Your task to perform on an android device: turn on translation in the chrome app Image 0: 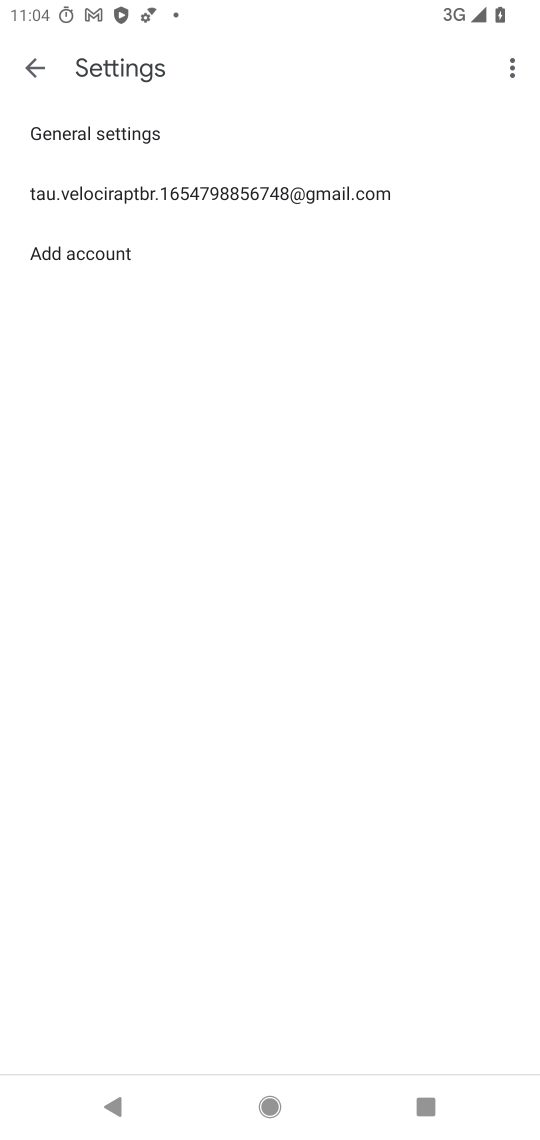
Step 0: press home button
Your task to perform on an android device: turn on translation in the chrome app Image 1: 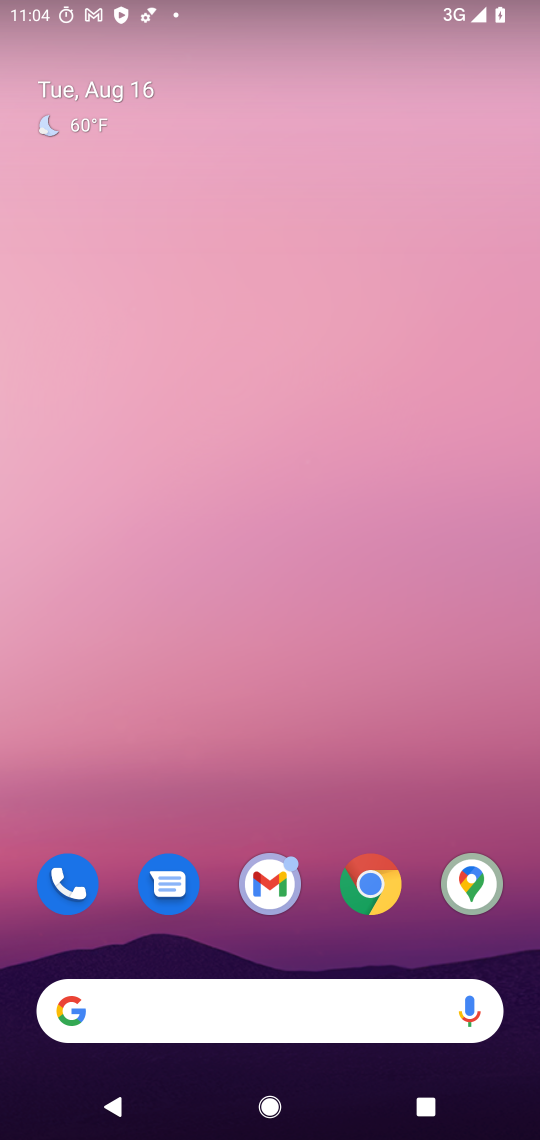
Step 1: click (370, 890)
Your task to perform on an android device: turn on translation in the chrome app Image 2: 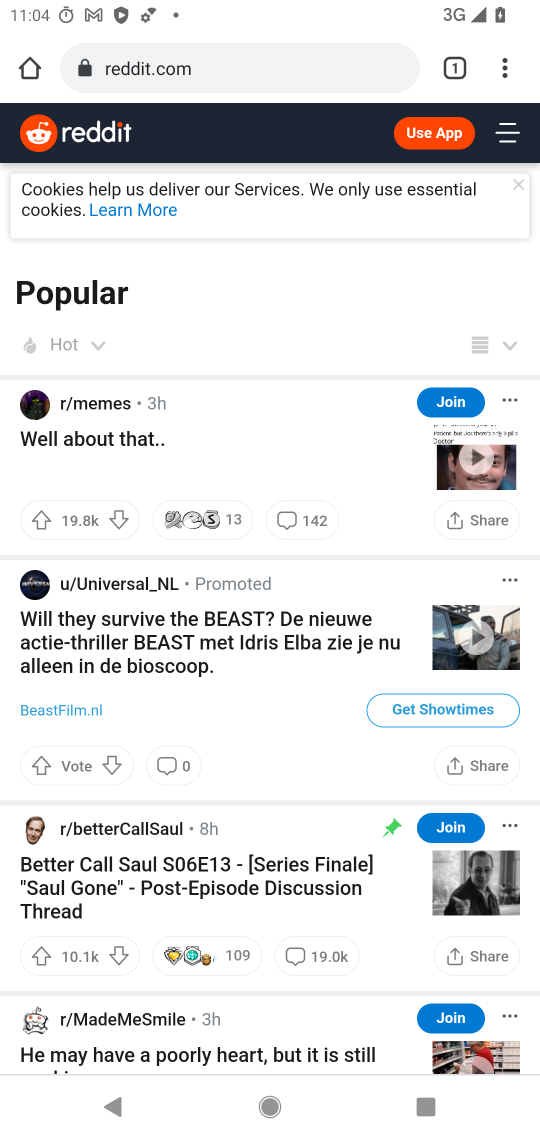
Step 2: click (507, 70)
Your task to perform on an android device: turn on translation in the chrome app Image 3: 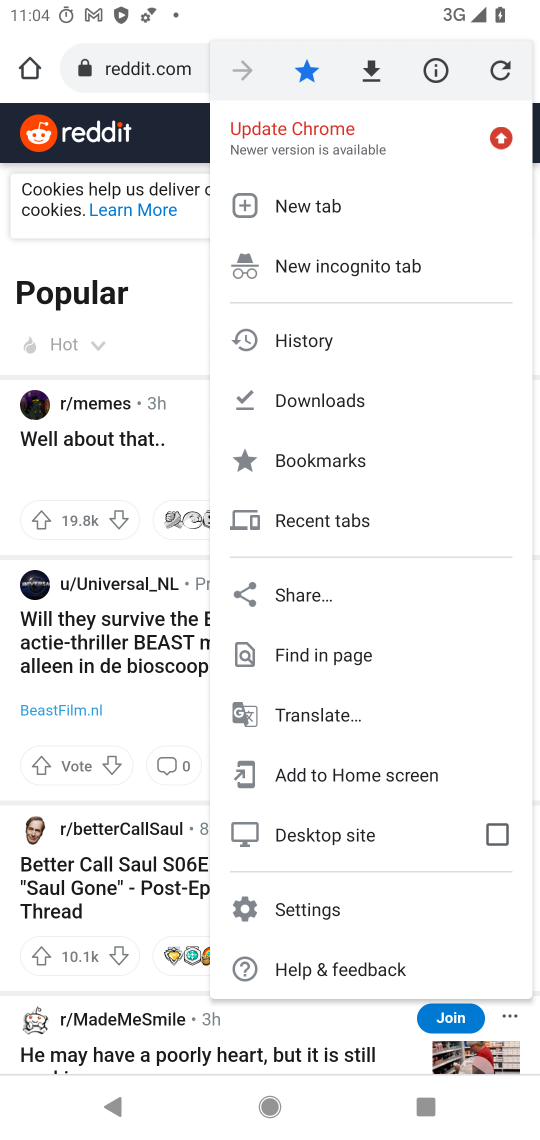
Step 3: click (299, 900)
Your task to perform on an android device: turn on translation in the chrome app Image 4: 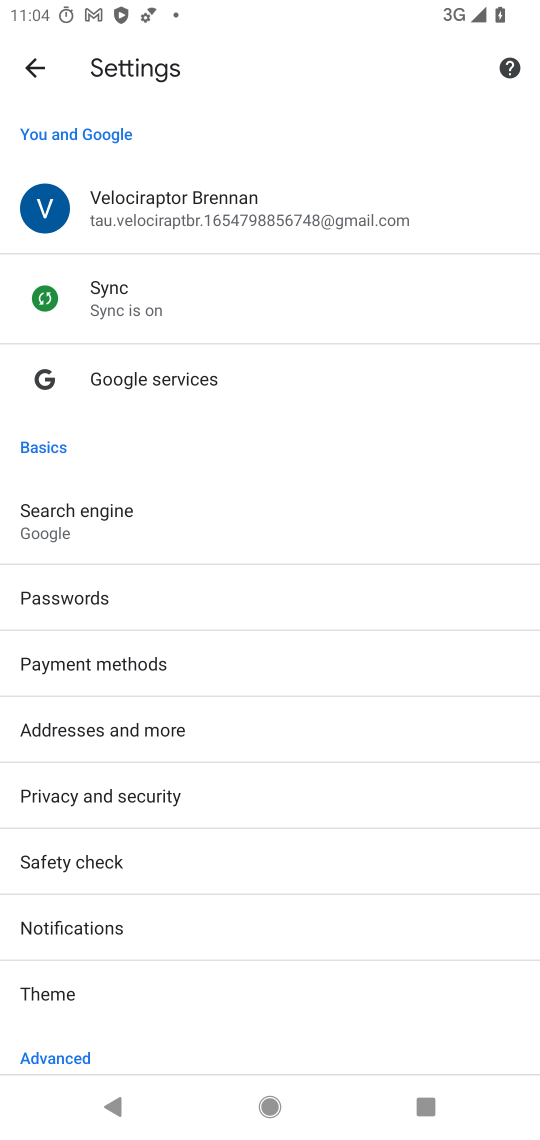
Step 4: drag from (96, 1002) to (96, 509)
Your task to perform on an android device: turn on translation in the chrome app Image 5: 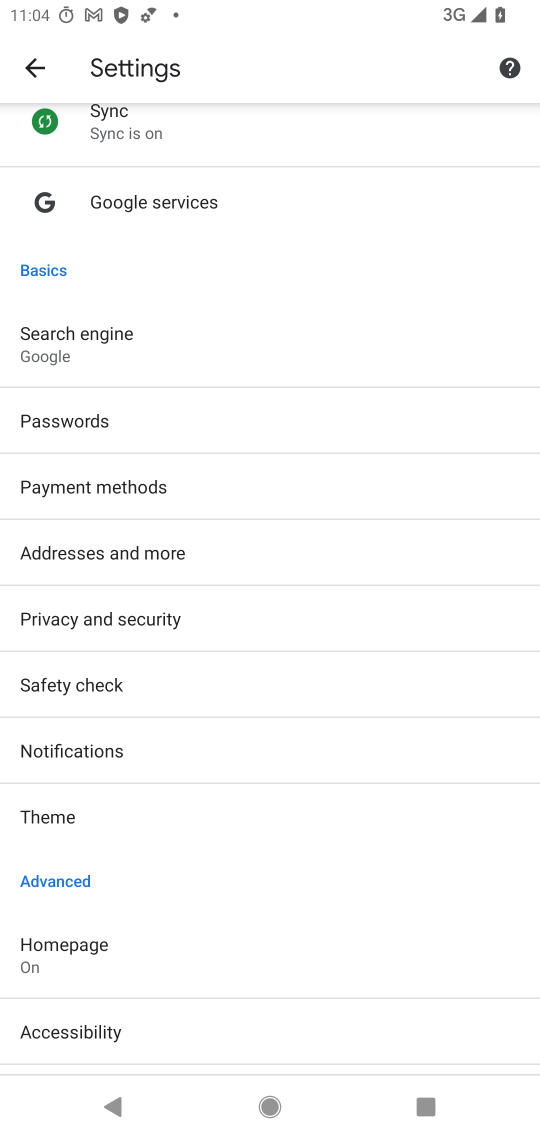
Step 5: drag from (175, 919) to (158, 381)
Your task to perform on an android device: turn on translation in the chrome app Image 6: 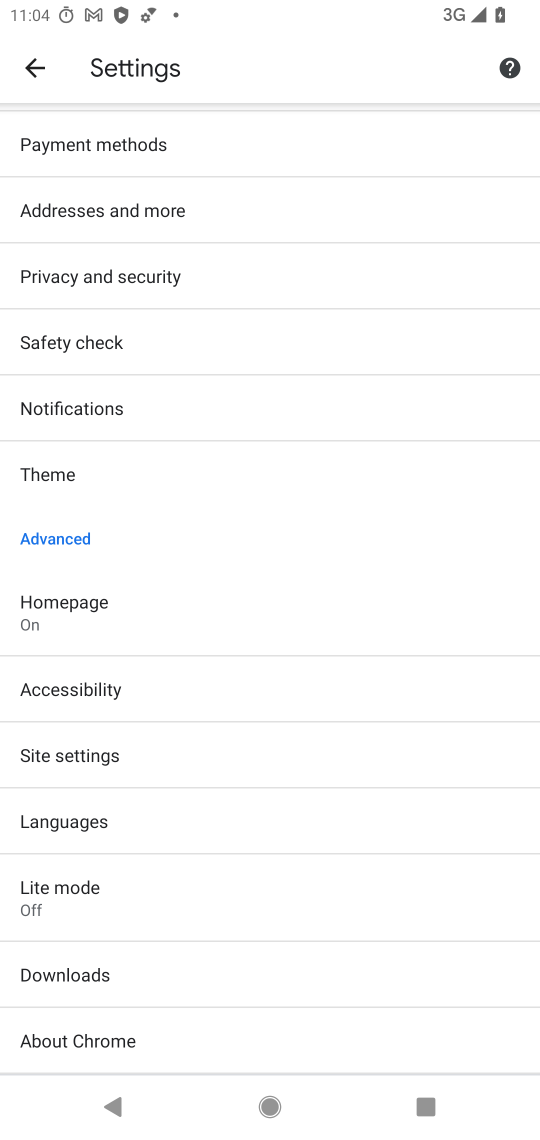
Step 6: click (50, 814)
Your task to perform on an android device: turn on translation in the chrome app Image 7: 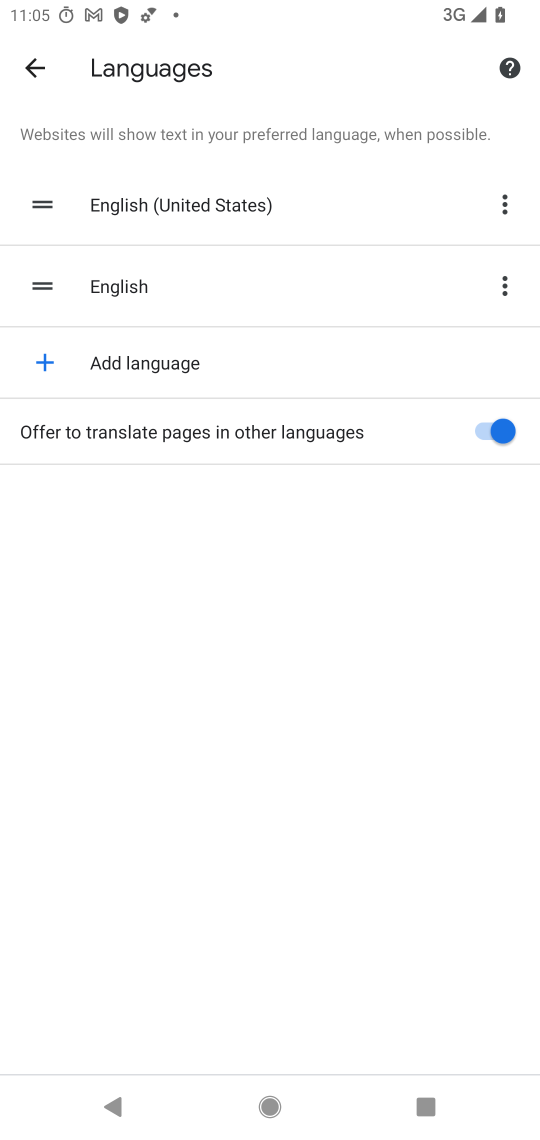
Step 7: task complete